Your task to perform on an android device: Show me popular games on the Play Store Image 0: 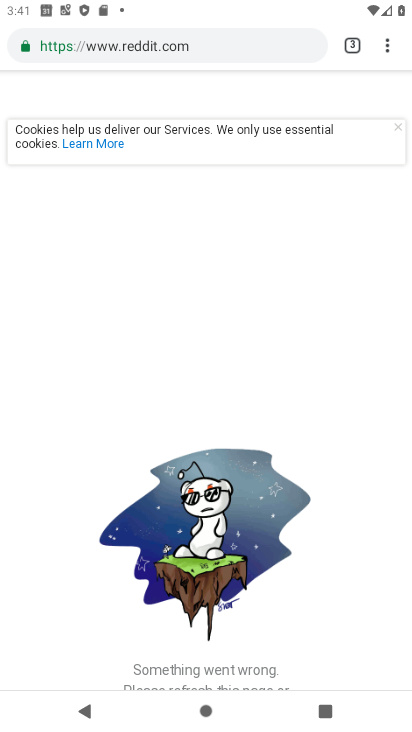
Step 0: press home button
Your task to perform on an android device: Show me popular games on the Play Store Image 1: 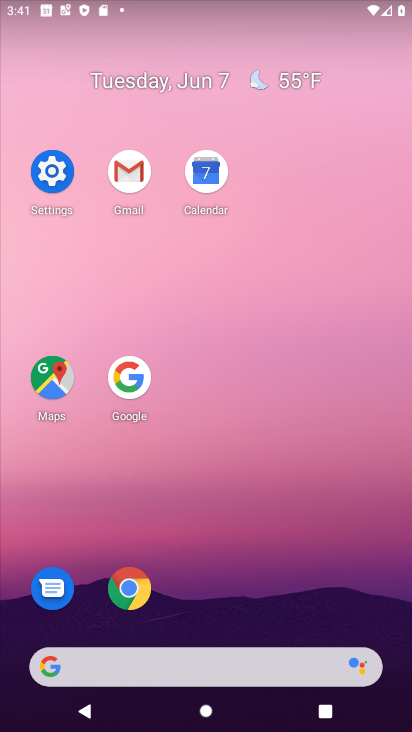
Step 1: drag from (220, 586) to (288, 108)
Your task to perform on an android device: Show me popular games on the Play Store Image 2: 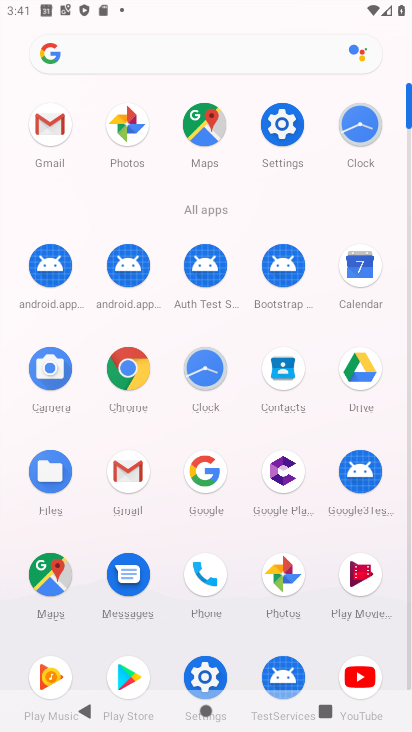
Step 2: click (114, 666)
Your task to perform on an android device: Show me popular games on the Play Store Image 3: 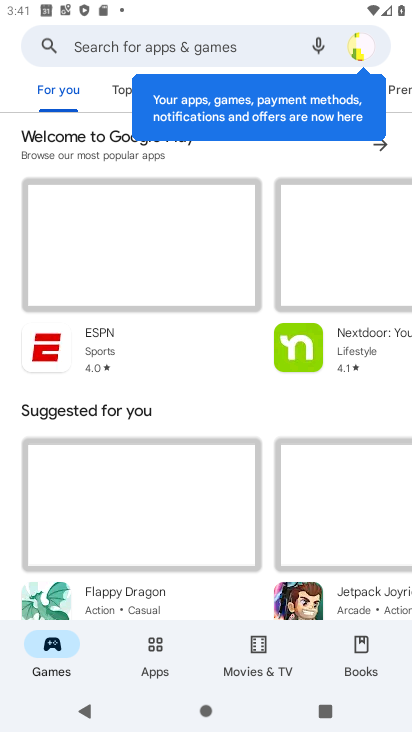
Step 3: drag from (229, 502) to (252, 230)
Your task to perform on an android device: Show me popular games on the Play Store Image 4: 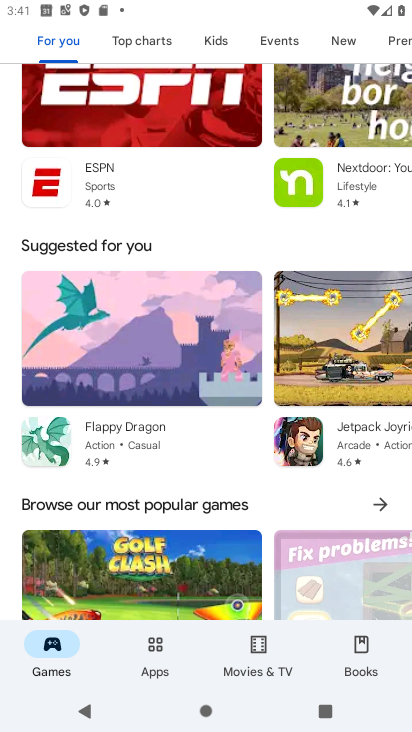
Step 4: drag from (224, 530) to (246, 164)
Your task to perform on an android device: Show me popular games on the Play Store Image 5: 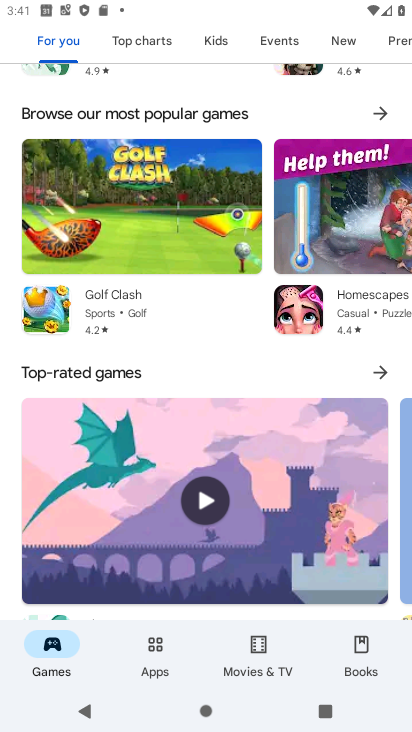
Step 5: drag from (229, 524) to (239, 205)
Your task to perform on an android device: Show me popular games on the Play Store Image 6: 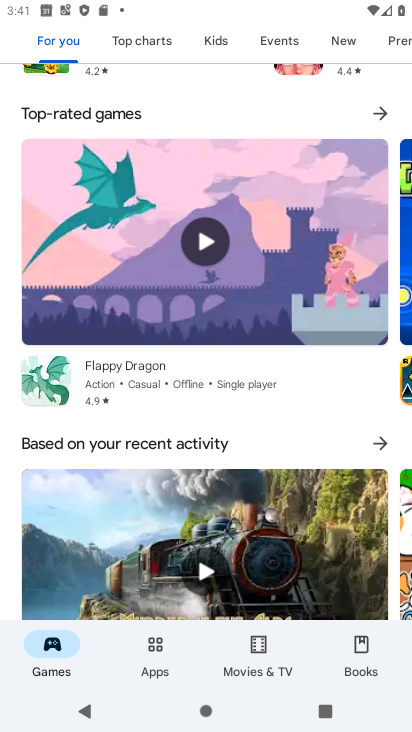
Step 6: drag from (225, 425) to (264, 178)
Your task to perform on an android device: Show me popular games on the Play Store Image 7: 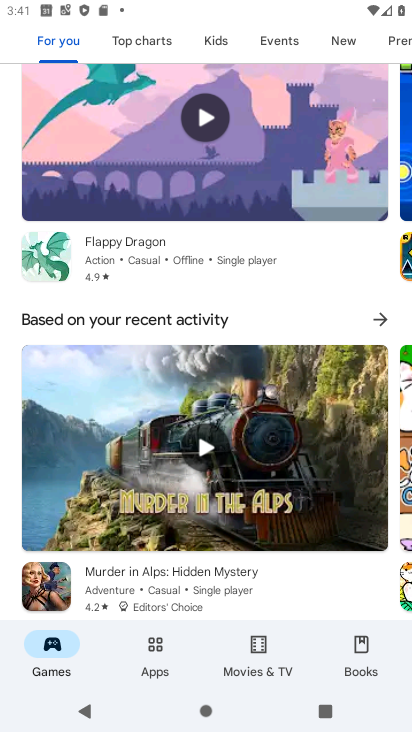
Step 7: drag from (264, 508) to (270, 182)
Your task to perform on an android device: Show me popular games on the Play Store Image 8: 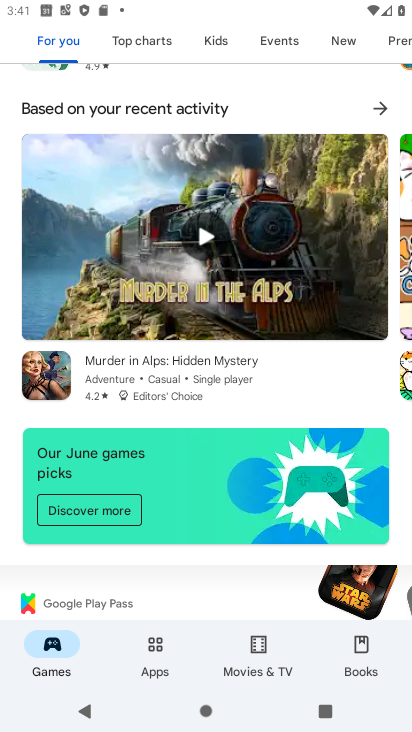
Step 8: drag from (254, 184) to (222, 576)
Your task to perform on an android device: Show me popular games on the Play Store Image 9: 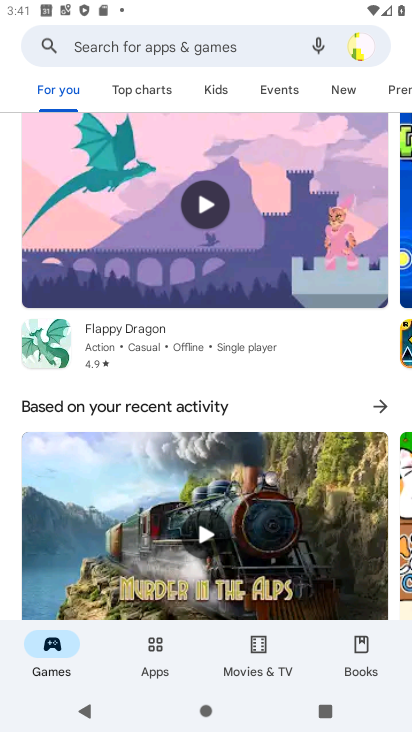
Step 9: drag from (257, 270) to (211, 603)
Your task to perform on an android device: Show me popular games on the Play Store Image 10: 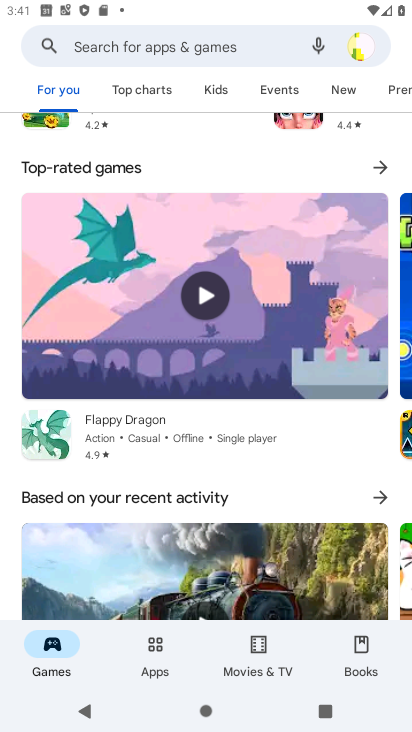
Step 10: drag from (253, 192) to (252, 434)
Your task to perform on an android device: Show me popular games on the Play Store Image 11: 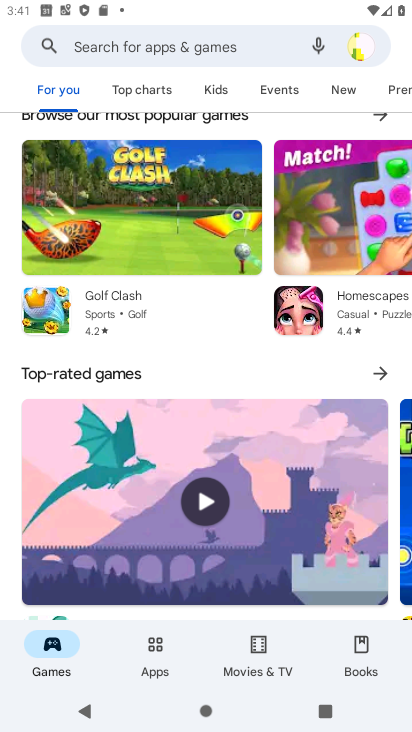
Step 11: drag from (288, 198) to (278, 448)
Your task to perform on an android device: Show me popular games on the Play Store Image 12: 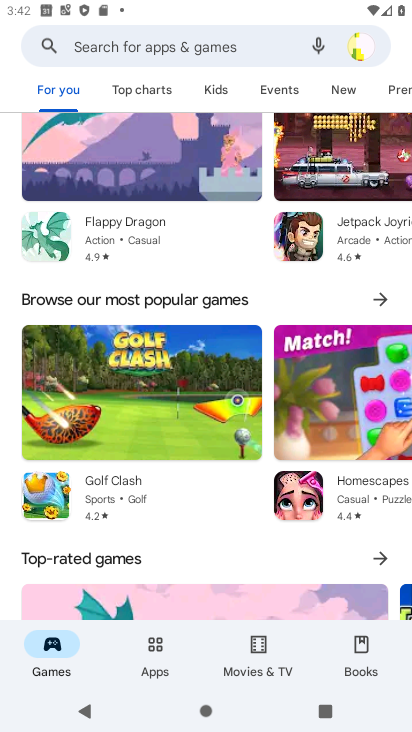
Step 12: click (265, 295)
Your task to perform on an android device: Show me popular games on the Play Store Image 13: 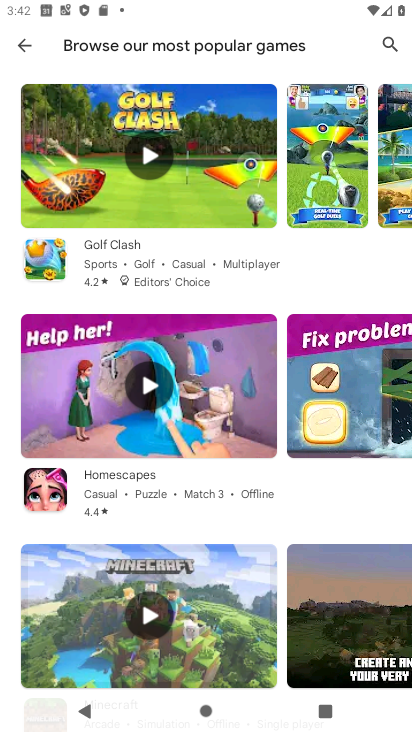
Step 13: task complete